Your task to perform on an android device: visit the assistant section in the google photos Image 0: 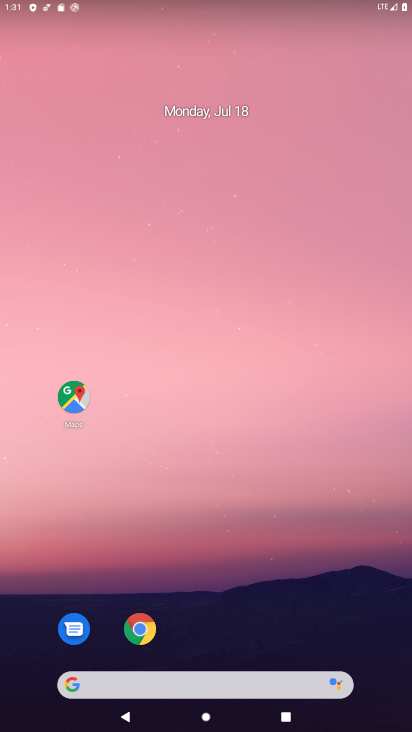
Step 0: drag from (219, 634) to (191, 10)
Your task to perform on an android device: visit the assistant section in the google photos Image 1: 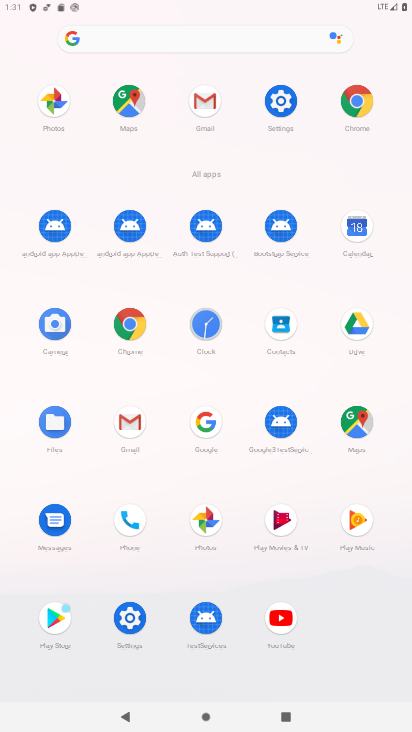
Step 1: click (198, 515)
Your task to perform on an android device: visit the assistant section in the google photos Image 2: 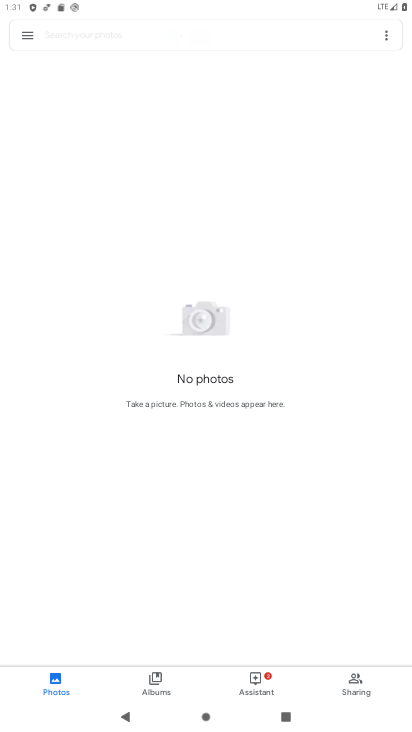
Step 2: click (254, 678)
Your task to perform on an android device: visit the assistant section in the google photos Image 3: 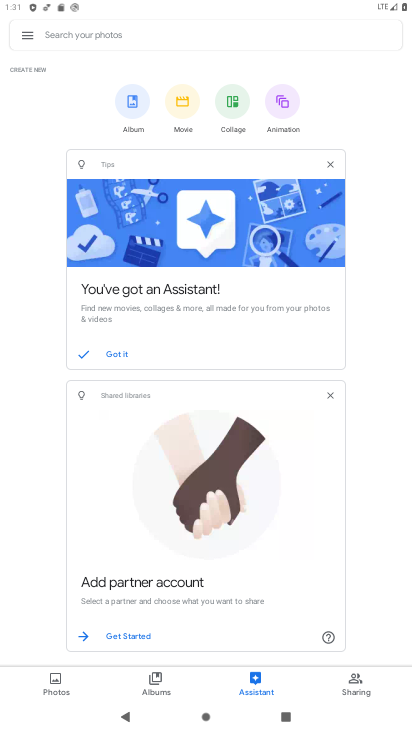
Step 3: task complete